Your task to perform on an android device: change the clock style Image 0: 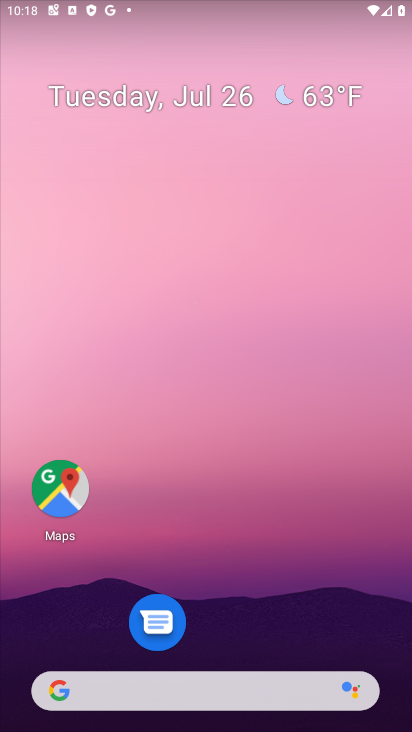
Step 0: drag from (270, 603) to (196, 61)
Your task to perform on an android device: change the clock style Image 1: 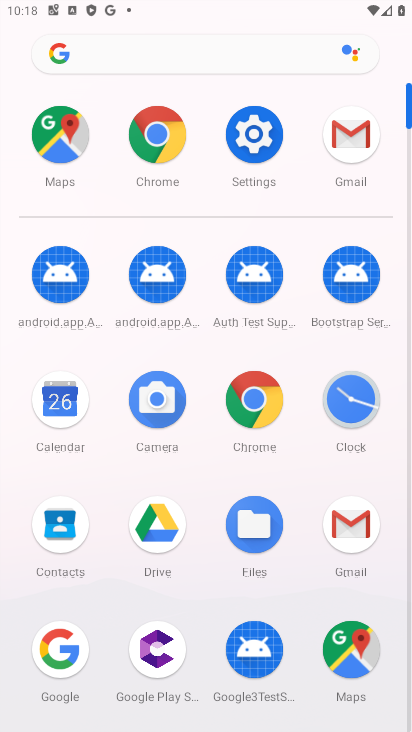
Step 1: click (354, 404)
Your task to perform on an android device: change the clock style Image 2: 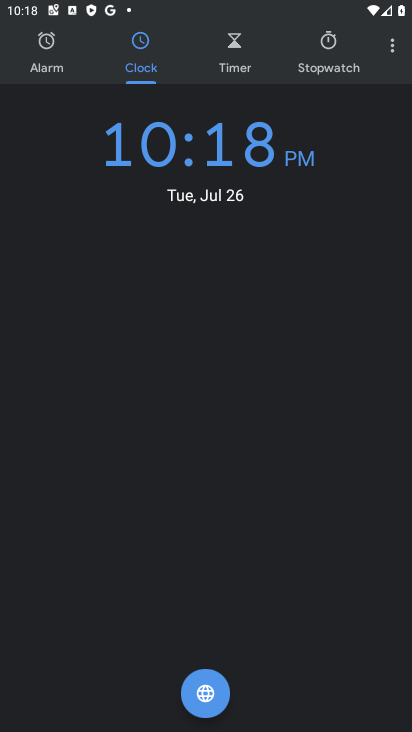
Step 2: click (393, 53)
Your task to perform on an android device: change the clock style Image 3: 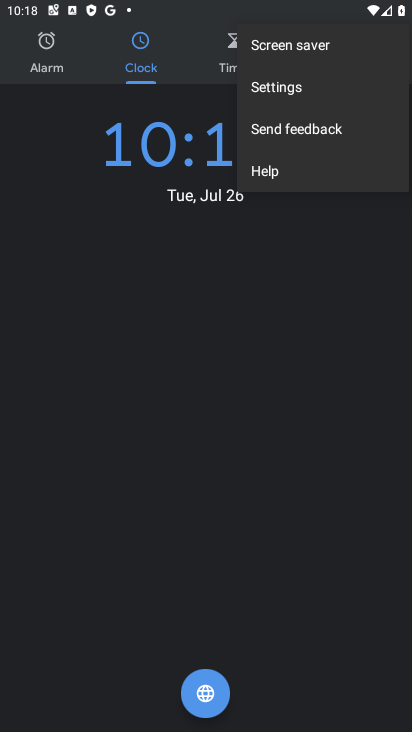
Step 3: click (285, 87)
Your task to perform on an android device: change the clock style Image 4: 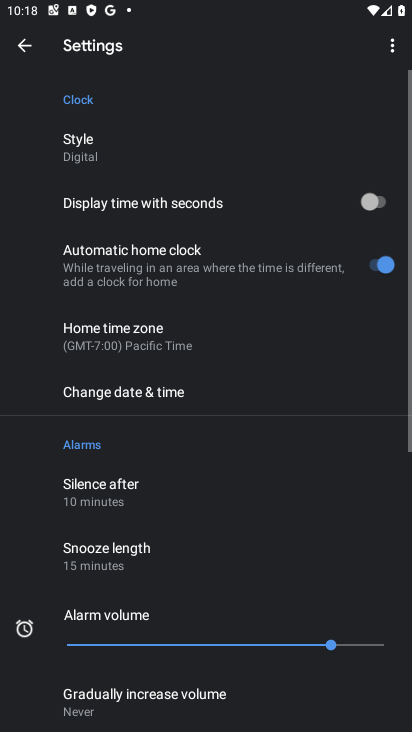
Step 4: click (85, 138)
Your task to perform on an android device: change the clock style Image 5: 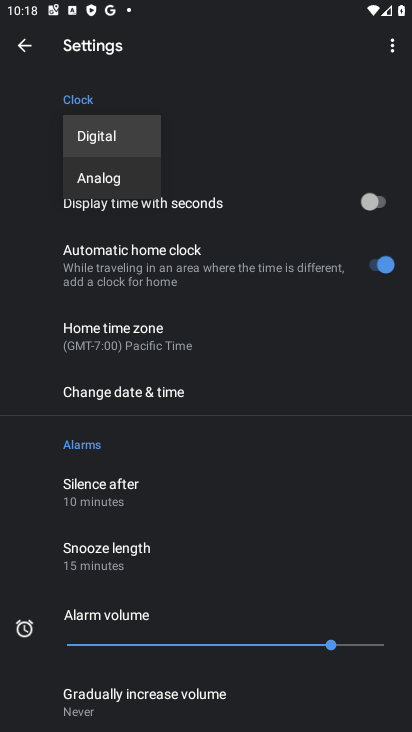
Step 5: click (111, 178)
Your task to perform on an android device: change the clock style Image 6: 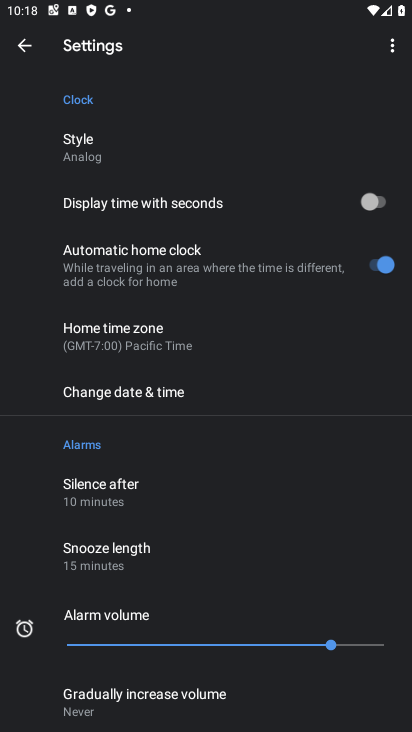
Step 6: task complete